Your task to perform on an android device: turn off notifications settings in the gmail app Image 0: 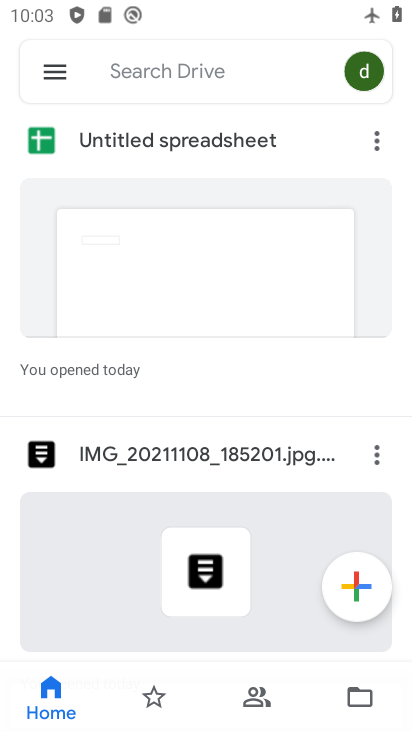
Step 0: press back button
Your task to perform on an android device: turn off notifications settings in the gmail app Image 1: 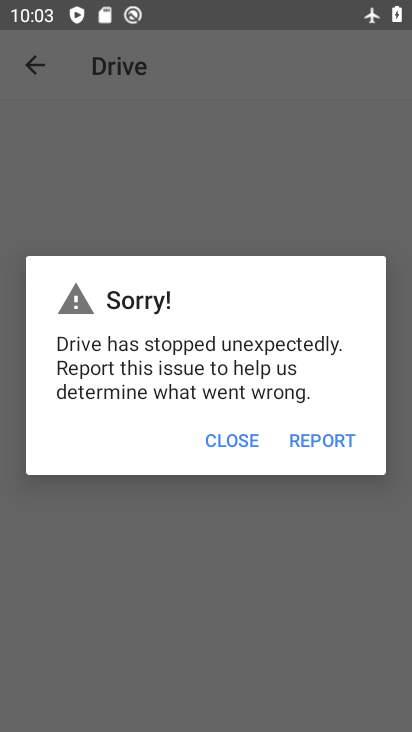
Step 1: press back button
Your task to perform on an android device: turn off notifications settings in the gmail app Image 2: 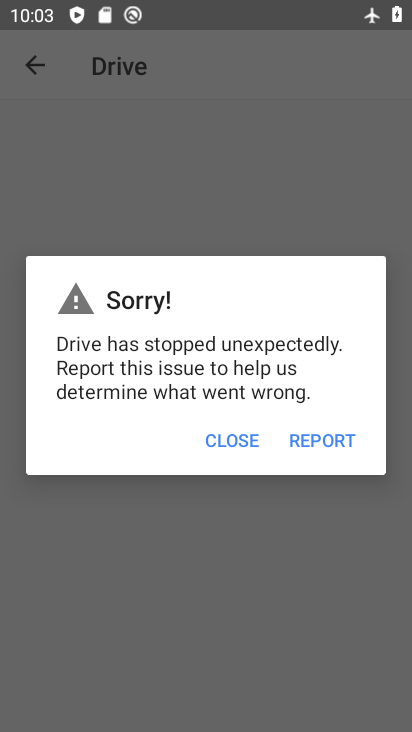
Step 2: press home button
Your task to perform on an android device: turn off notifications settings in the gmail app Image 3: 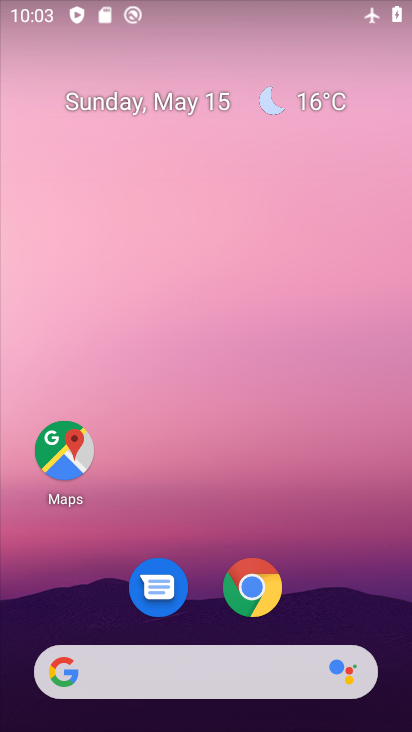
Step 3: drag from (365, 564) to (264, 0)
Your task to perform on an android device: turn off notifications settings in the gmail app Image 4: 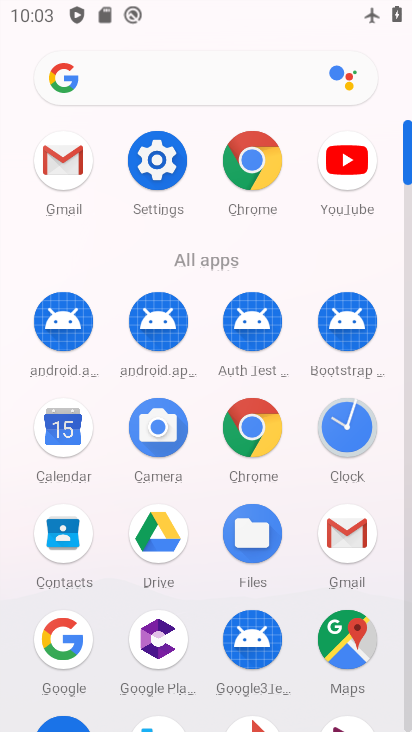
Step 4: click (345, 527)
Your task to perform on an android device: turn off notifications settings in the gmail app Image 5: 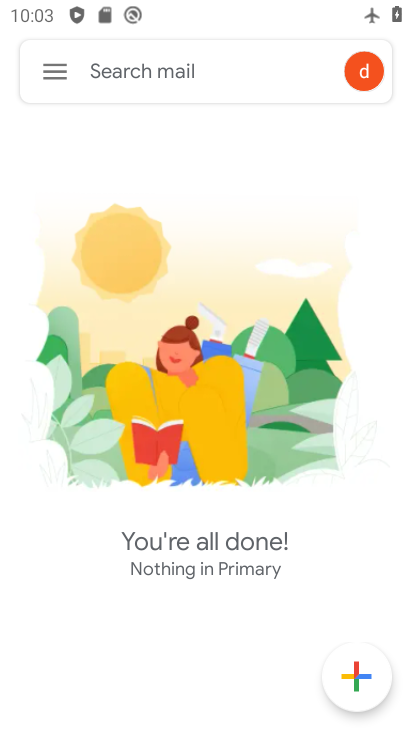
Step 5: click (55, 70)
Your task to perform on an android device: turn off notifications settings in the gmail app Image 6: 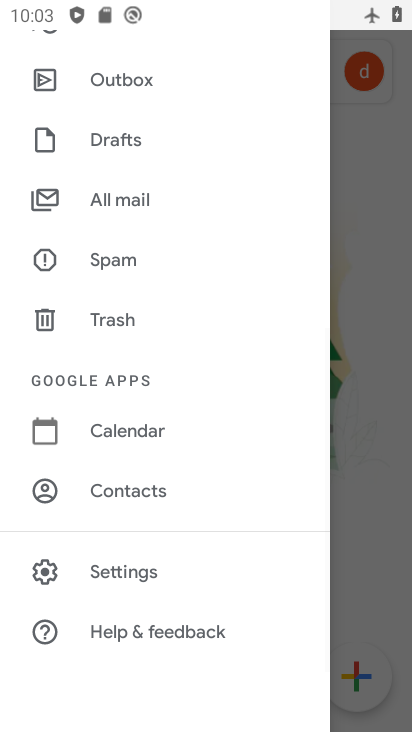
Step 6: click (121, 572)
Your task to perform on an android device: turn off notifications settings in the gmail app Image 7: 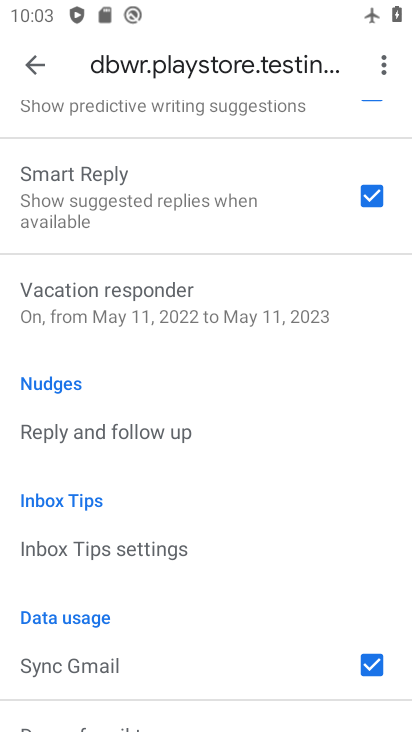
Step 7: drag from (230, 174) to (219, 563)
Your task to perform on an android device: turn off notifications settings in the gmail app Image 8: 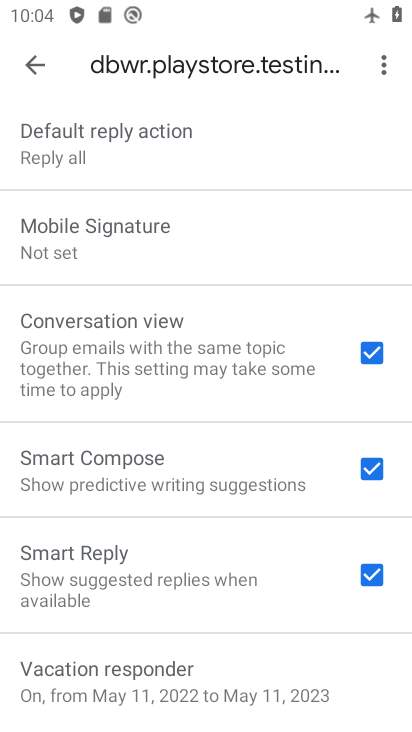
Step 8: drag from (248, 205) to (217, 574)
Your task to perform on an android device: turn off notifications settings in the gmail app Image 9: 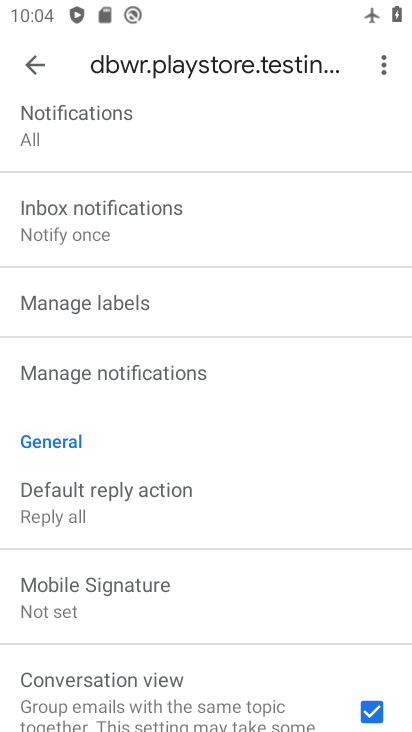
Step 9: click (117, 363)
Your task to perform on an android device: turn off notifications settings in the gmail app Image 10: 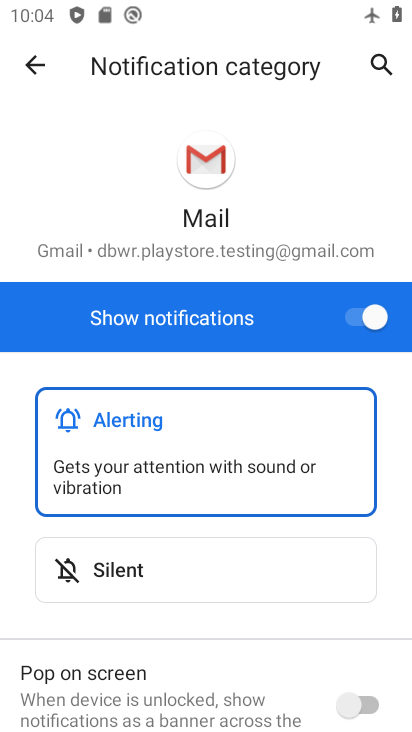
Step 10: click (345, 319)
Your task to perform on an android device: turn off notifications settings in the gmail app Image 11: 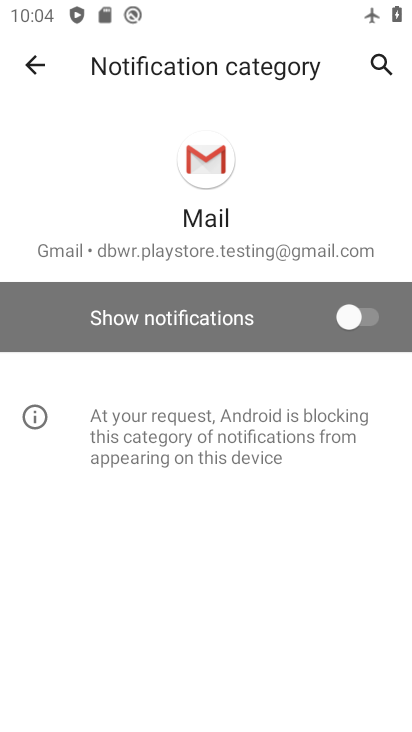
Step 11: task complete